Your task to perform on an android device: check battery use Image 0: 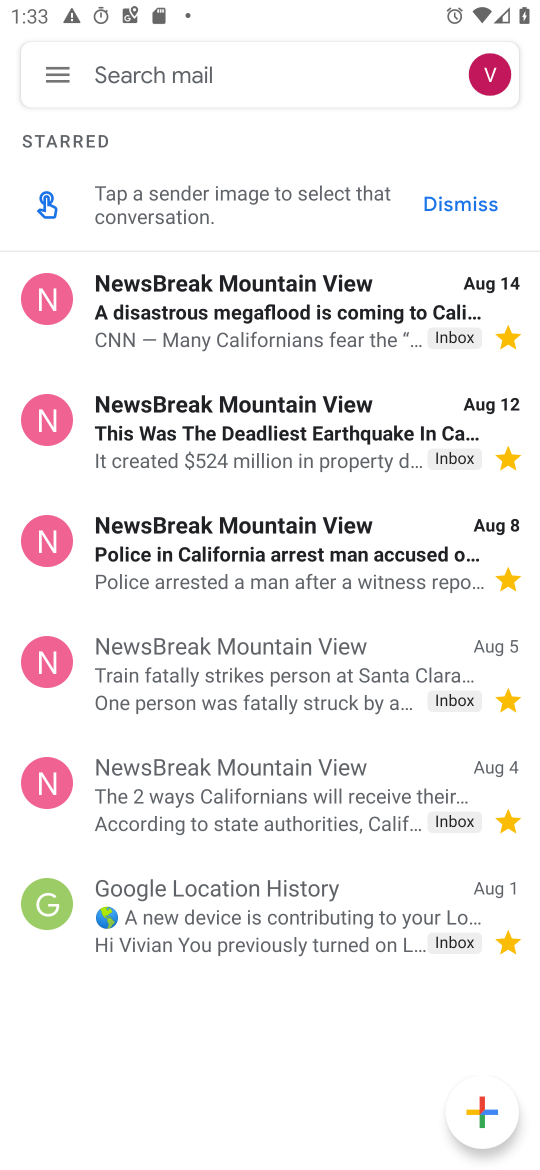
Step 0: press home button
Your task to perform on an android device: check battery use Image 1: 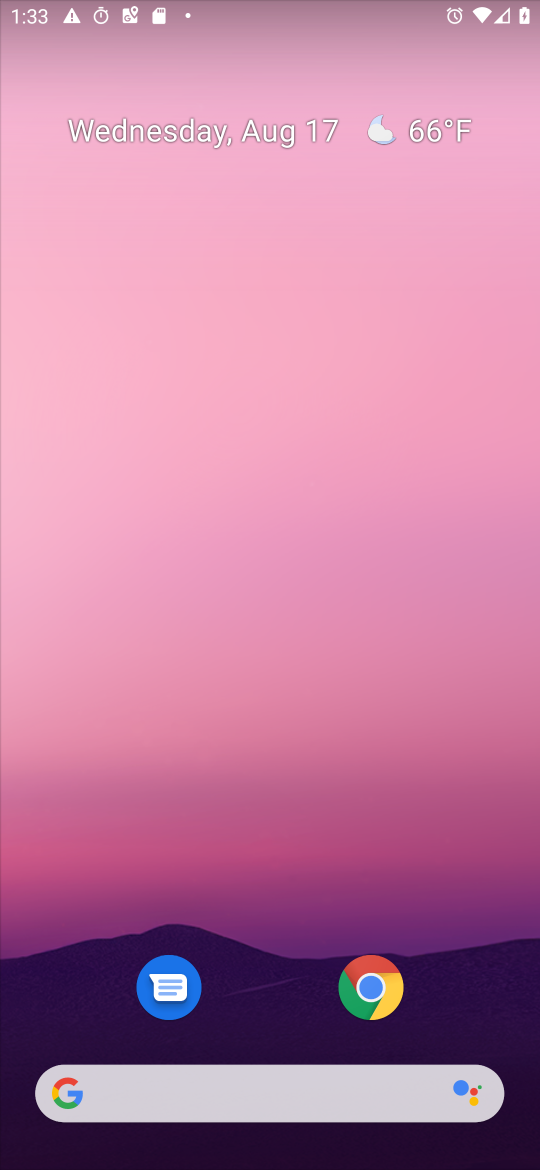
Step 1: drag from (28, 1119) to (416, 232)
Your task to perform on an android device: check battery use Image 2: 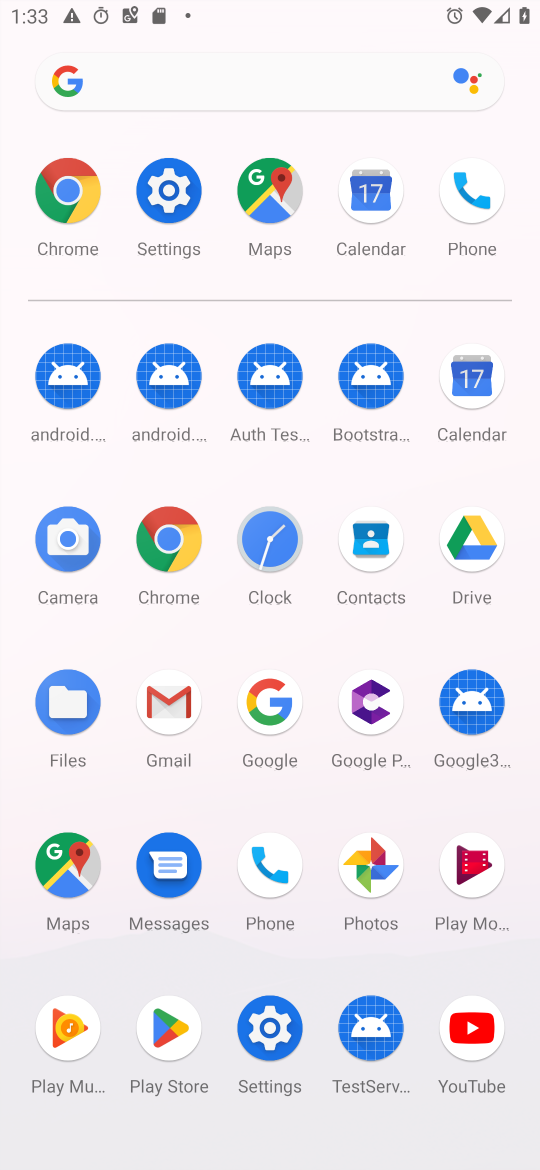
Step 2: click (249, 1034)
Your task to perform on an android device: check battery use Image 3: 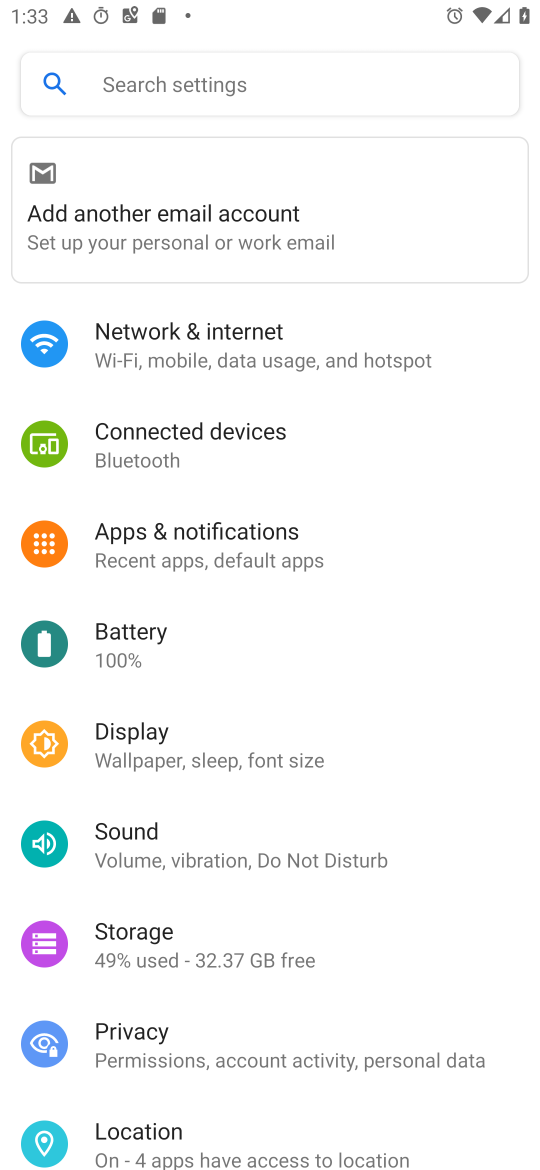
Step 3: click (134, 652)
Your task to perform on an android device: check battery use Image 4: 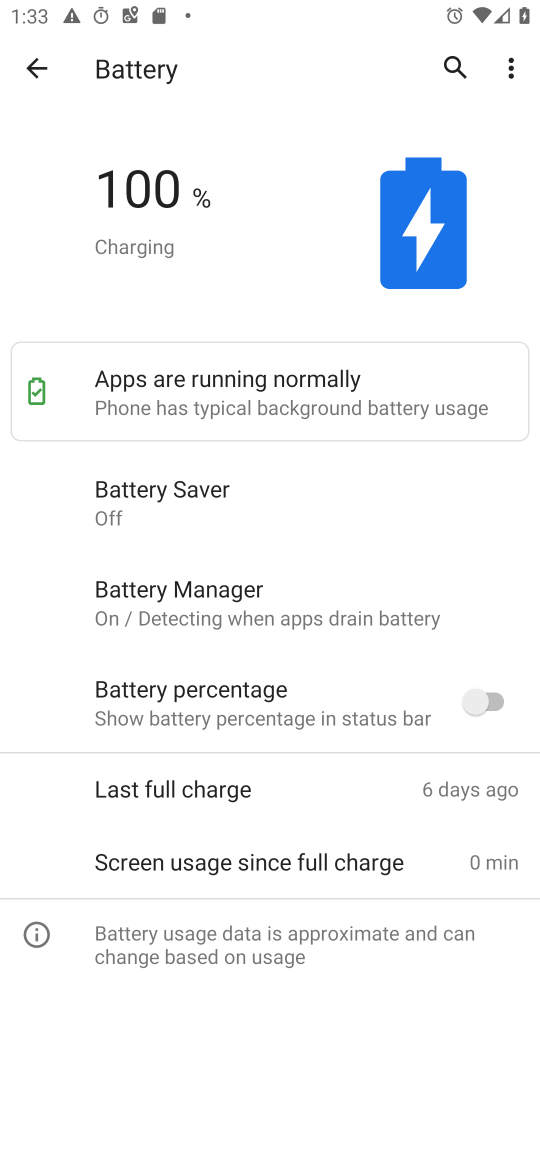
Step 4: task complete